Your task to perform on an android device: open chrome privacy settings Image 0: 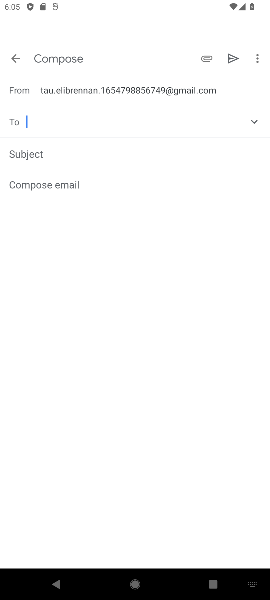
Step 0: press home button
Your task to perform on an android device: open chrome privacy settings Image 1: 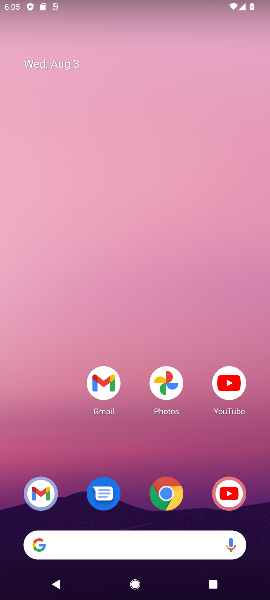
Step 1: click (169, 491)
Your task to perform on an android device: open chrome privacy settings Image 2: 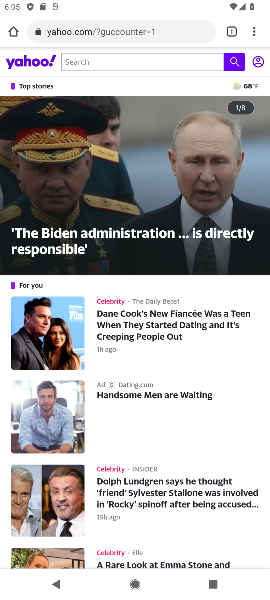
Step 2: click (255, 35)
Your task to perform on an android device: open chrome privacy settings Image 3: 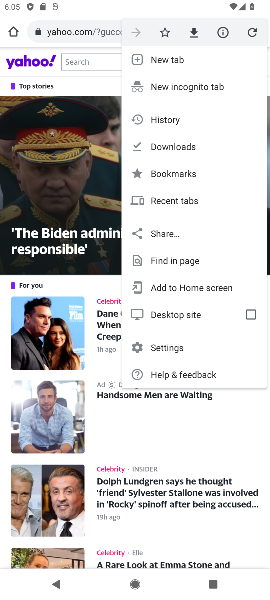
Step 3: click (158, 345)
Your task to perform on an android device: open chrome privacy settings Image 4: 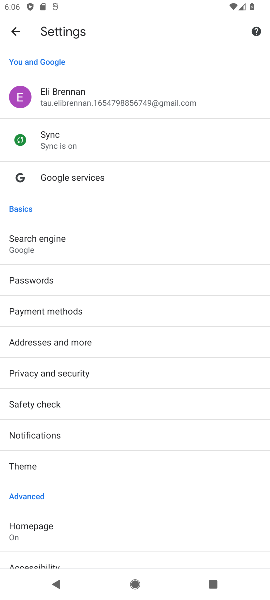
Step 4: click (56, 369)
Your task to perform on an android device: open chrome privacy settings Image 5: 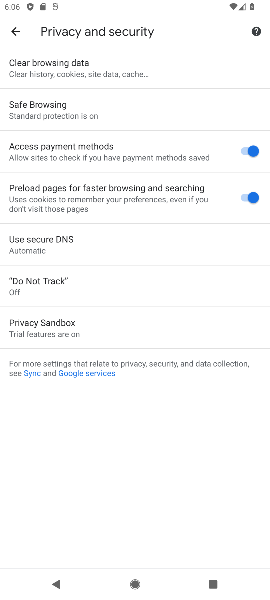
Step 5: task complete